Your task to perform on an android device: turn off location history Image 0: 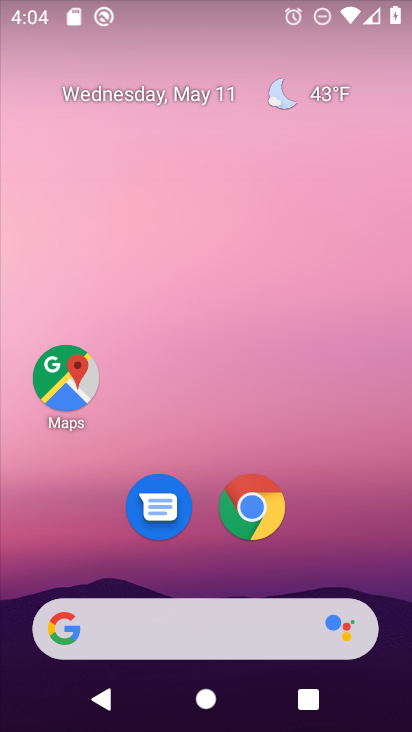
Step 0: drag from (401, 627) to (290, 89)
Your task to perform on an android device: turn off location history Image 1: 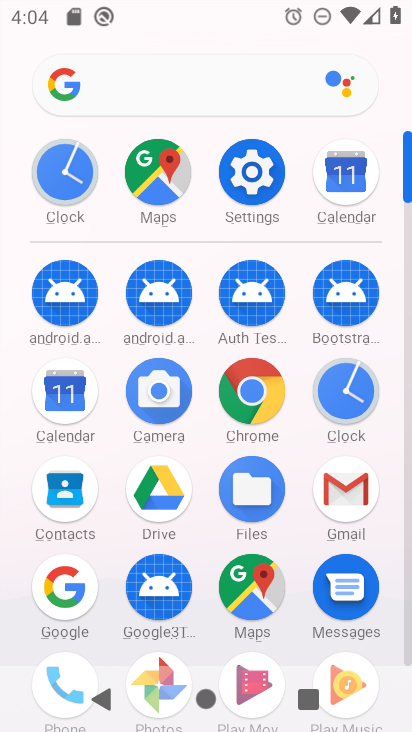
Step 1: click (404, 644)
Your task to perform on an android device: turn off location history Image 2: 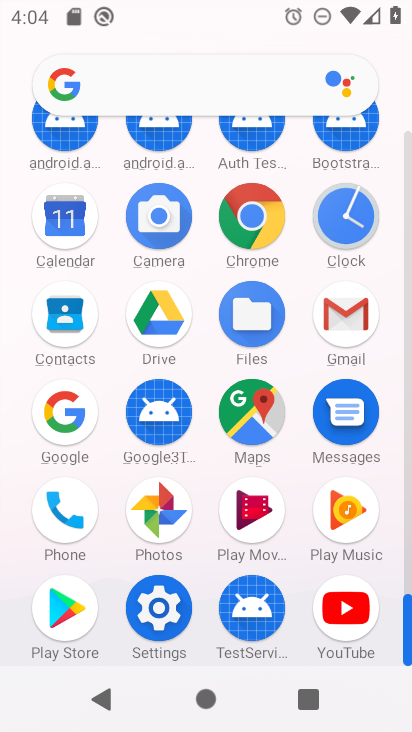
Step 2: click (251, 413)
Your task to perform on an android device: turn off location history Image 3: 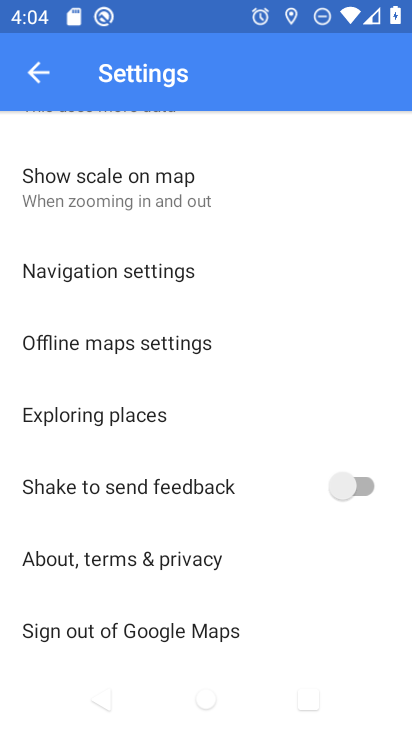
Step 3: drag from (321, 250) to (311, 666)
Your task to perform on an android device: turn off location history Image 4: 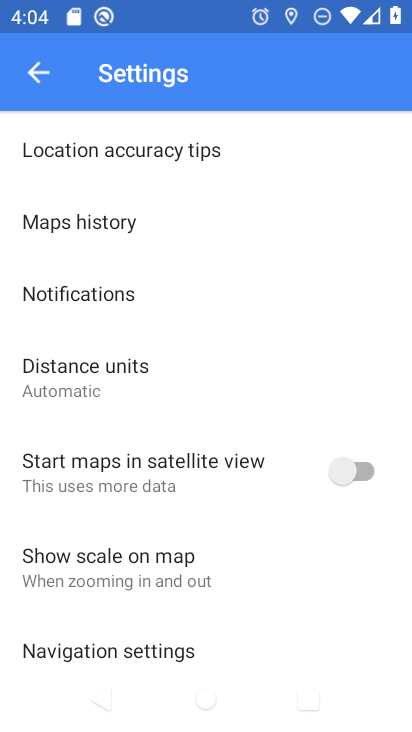
Step 4: drag from (320, 280) to (302, 492)
Your task to perform on an android device: turn off location history Image 5: 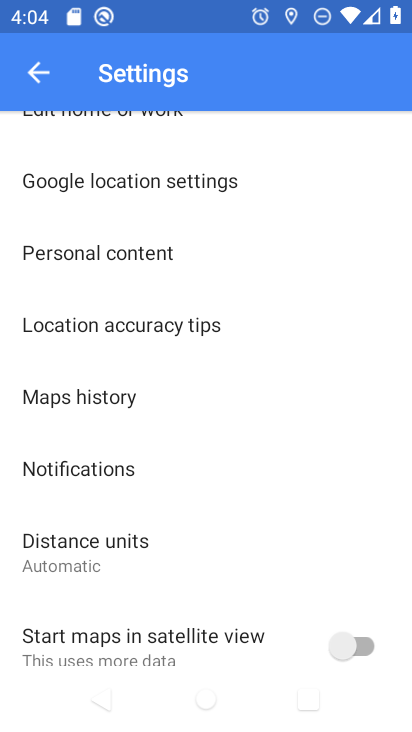
Step 5: drag from (280, 201) to (239, 506)
Your task to perform on an android device: turn off location history Image 6: 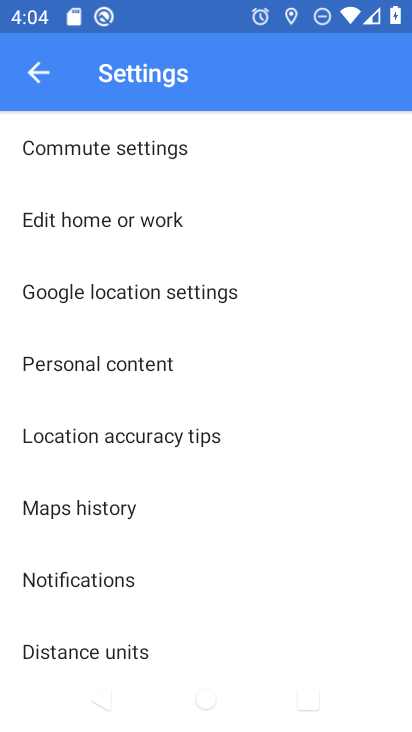
Step 6: click (79, 359)
Your task to perform on an android device: turn off location history Image 7: 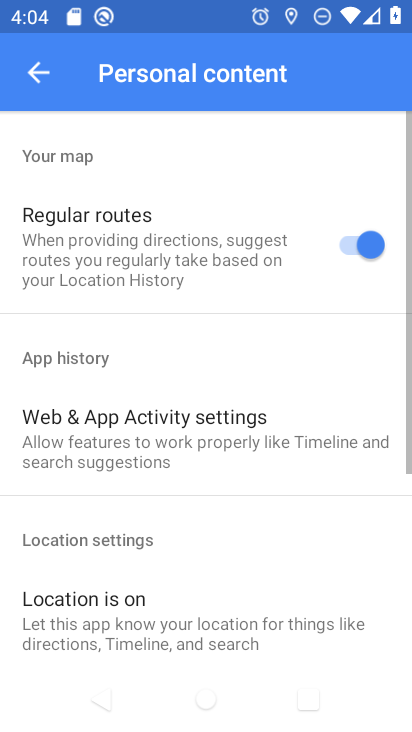
Step 7: drag from (276, 557) to (296, 178)
Your task to perform on an android device: turn off location history Image 8: 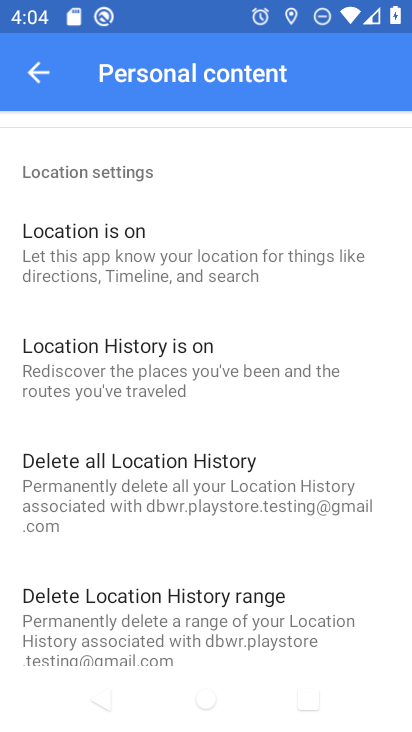
Step 8: click (95, 367)
Your task to perform on an android device: turn off location history Image 9: 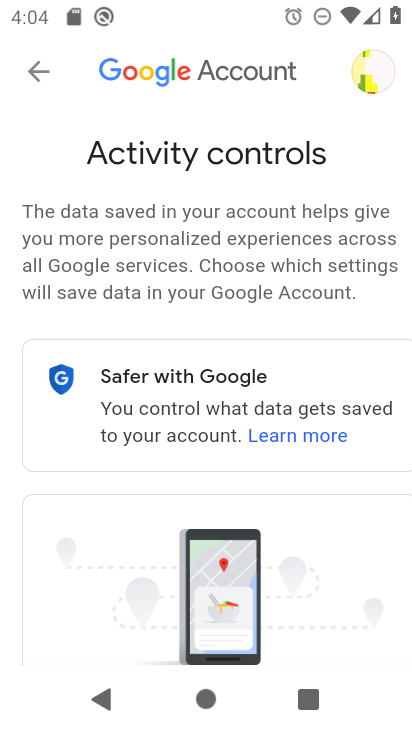
Step 9: drag from (322, 615) to (297, 62)
Your task to perform on an android device: turn off location history Image 10: 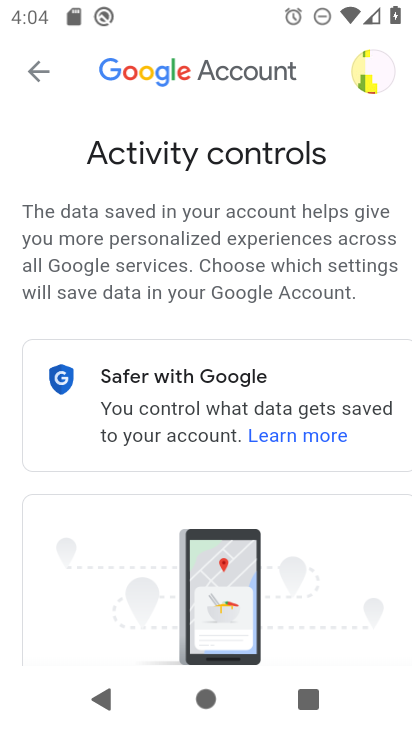
Step 10: drag from (324, 625) to (321, 143)
Your task to perform on an android device: turn off location history Image 11: 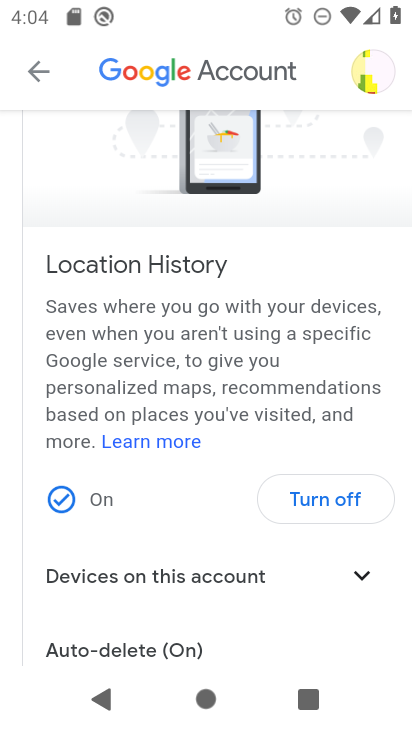
Step 11: click (319, 500)
Your task to perform on an android device: turn off location history Image 12: 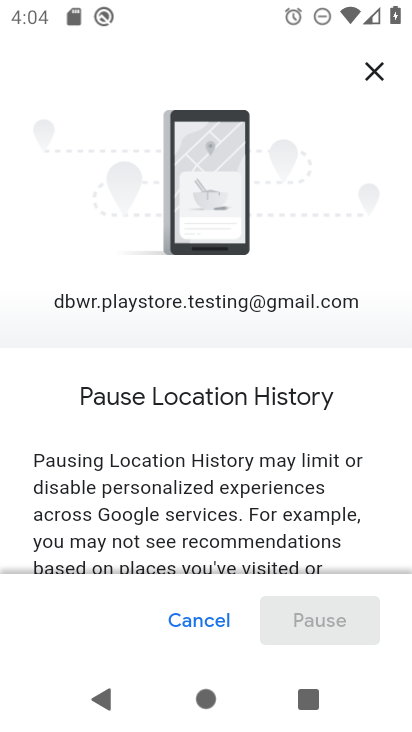
Step 12: drag from (271, 524) to (243, 80)
Your task to perform on an android device: turn off location history Image 13: 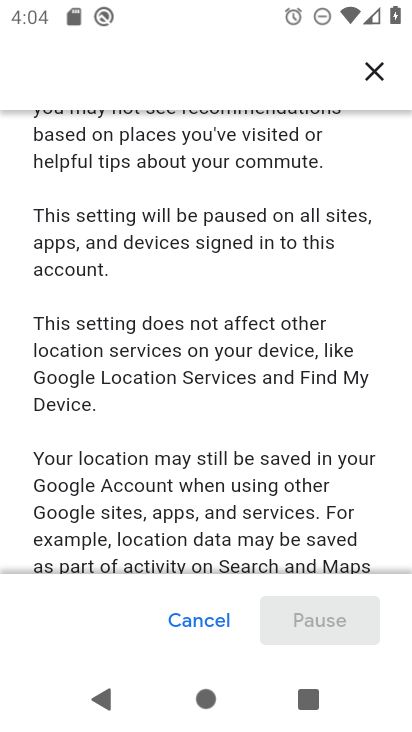
Step 13: drag from (259, 518) to (225, 65)
Your task to perform on an android device: turn off location history Image 14: 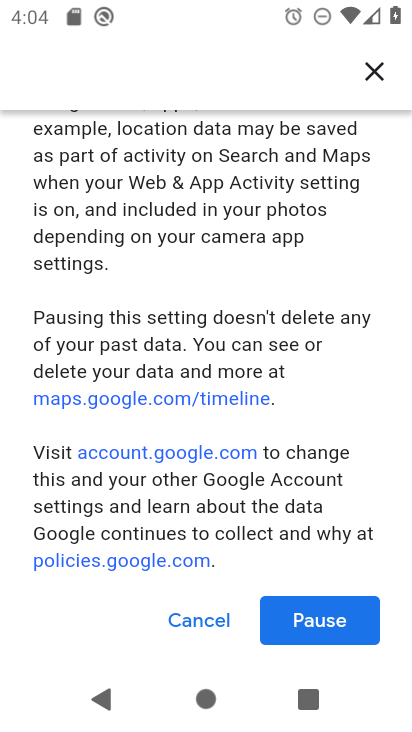
Step 14: click (315, 625)
Your task to perform on an android device: turn off location history Image 15: 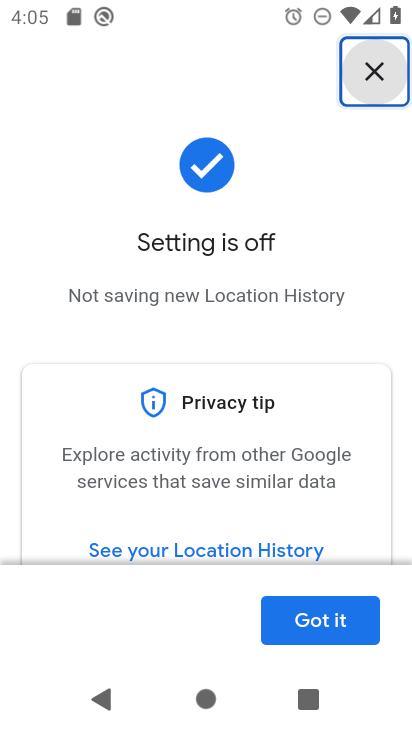
Step 15: click (315, 625)
Your task to perform on an android device: turn off location history Image 16: 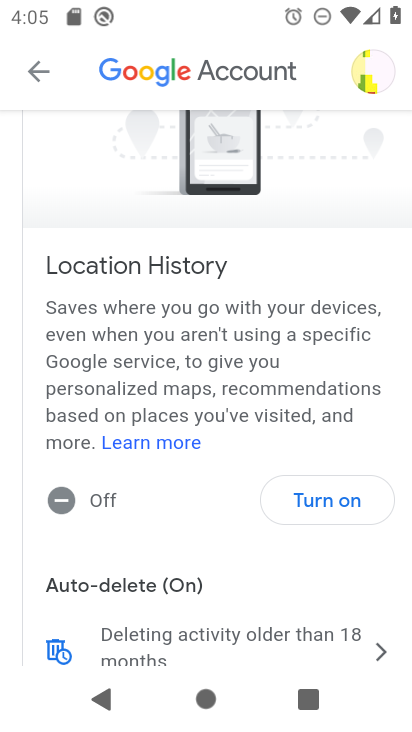
Step 16: task complete